Your task to perform on an android device: What's the weather today? Image 0: 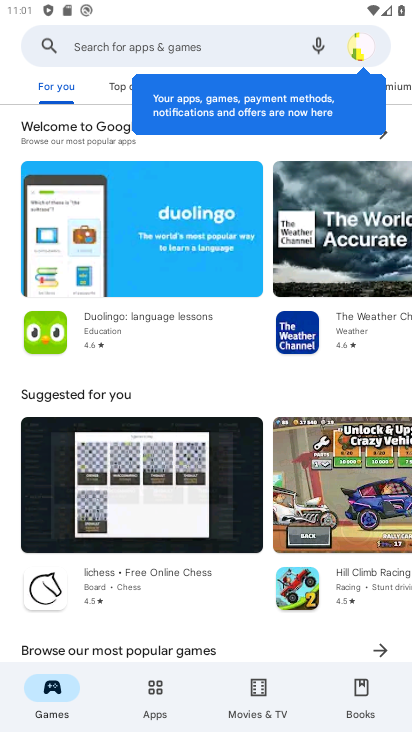
Step 0: press home button
Your task to perform on an android device: What's the weather today? Image 1: 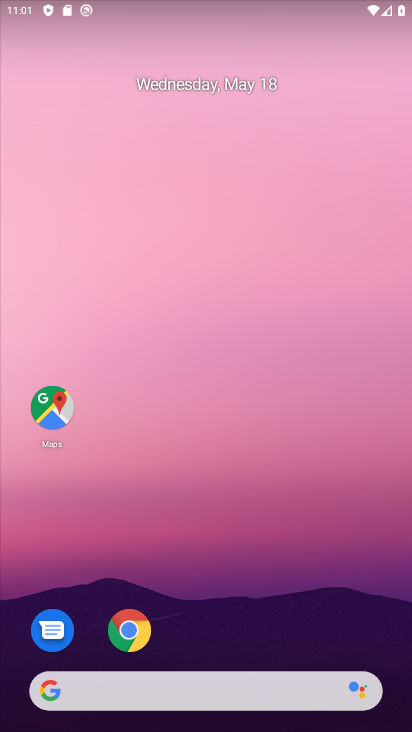
Step 1: click (197, 688)
Your task to perform on an android device: What's the weather today? Image 2: 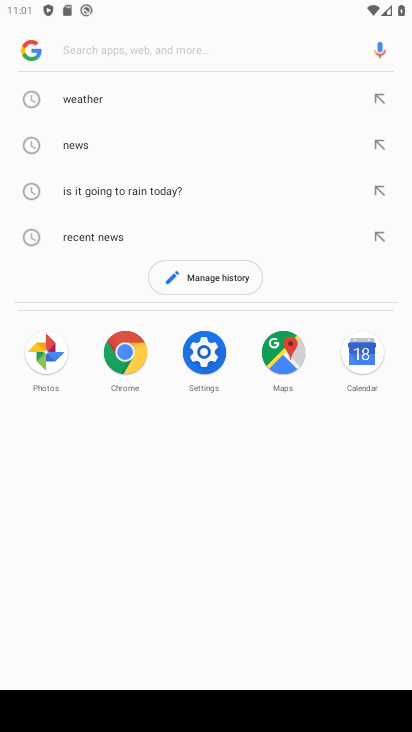
Step 2: click (142, 96)
Your task to perform on an android device: What's the weather today? Image 3: 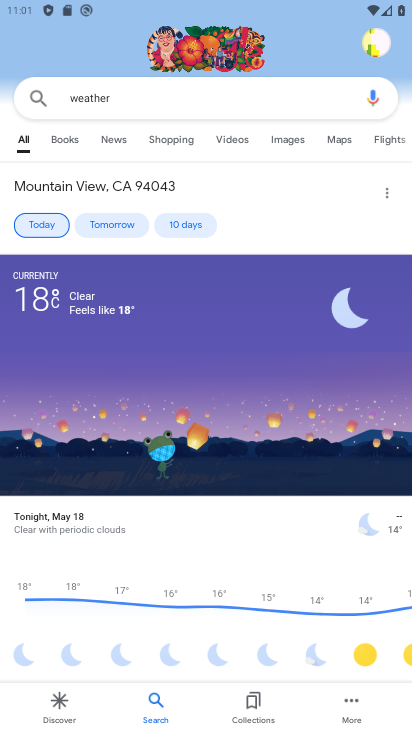
Step 3: task complete